Your task to perform on an android device: turn off smart reply in the gmail app Image 0: 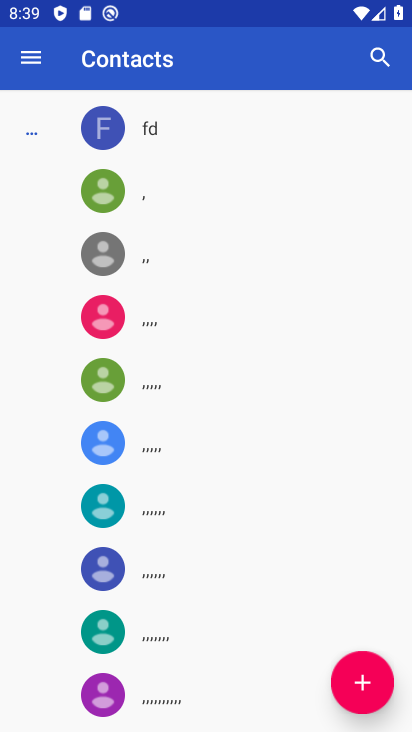
Step 0: press home button
Your task to perform on an android device: turn off smart reply in the gmail app Image 1: 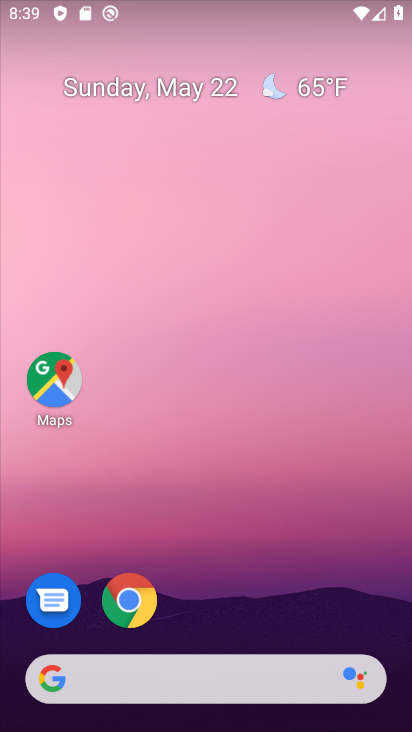
Step 1: drag from (306, 601) to (410, 95)
Your task to perform on an android device: turn off smart reply in the gmail app Image 2: 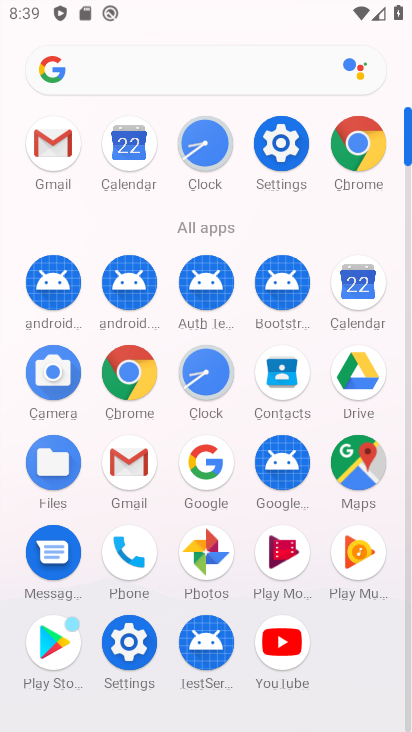
Step 2: click (41, 199)
Your task to perform on an android device: turn off smart reply in the gmail app Image 3: 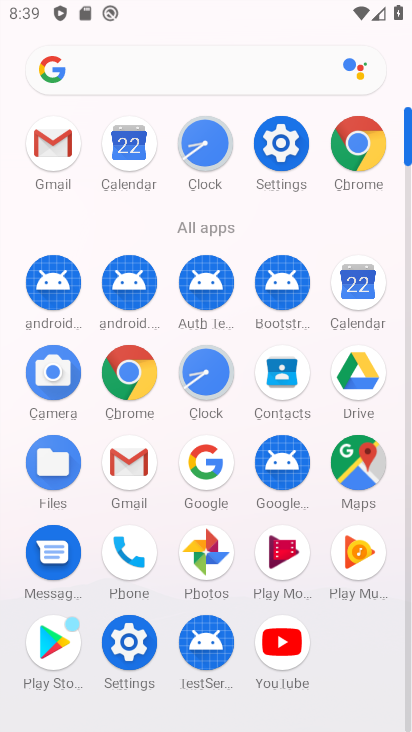
Step 3: click (49, 176)
Your task to perform on an android device: turn off smart reply in the gmail app Image 4: 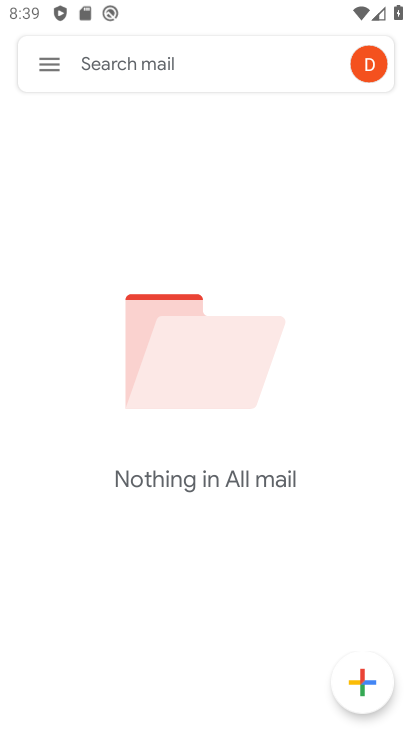
Step 4: click (51, 63)
Your task to perform on an android device: turn off smart reply in the gmail app Image 5: 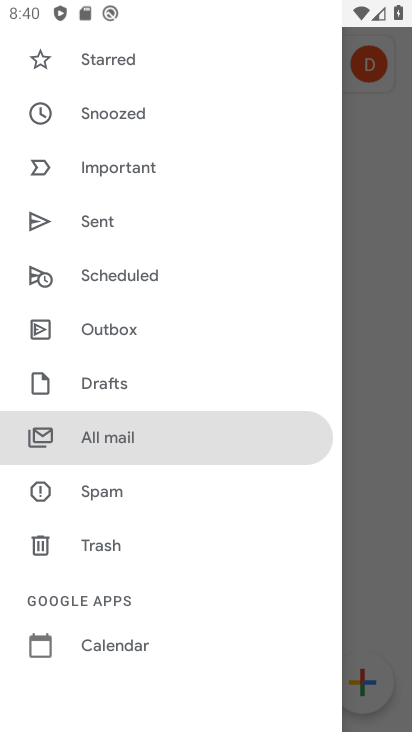
Step 5: drag from (138, 603) to (160, 311)
Your task to perform on an android device: turn off smart reply in the gmail app Image 6: 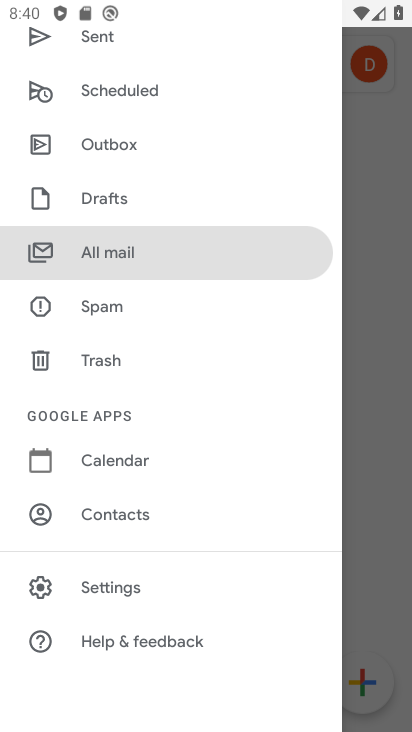
Step 6: click (111, 582)
Your task to perform on an android device: turn off smart reply in the gmail app Image 7: 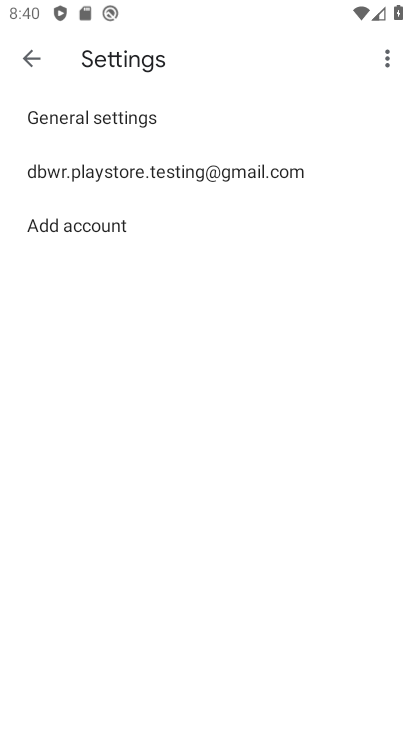
Step 7: click (160, 178)
Your task to perform on an android device: turn off smart reply in the gmail app Image 8: 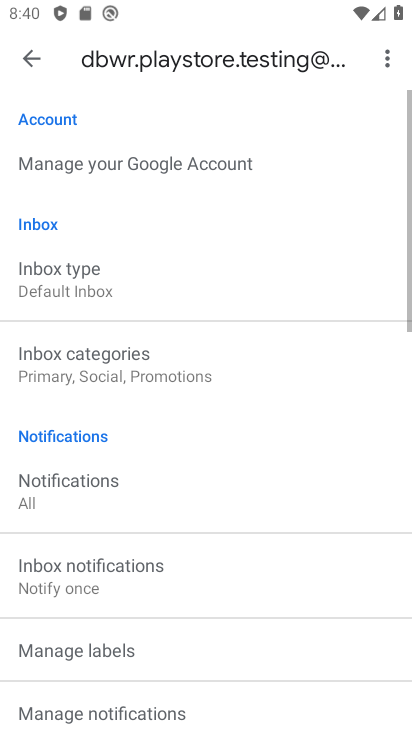
Step 8: drag from (121, 708) to (106, 394)
Your task to perform on an android device: turn off smart reply in the gmail app Image 9: 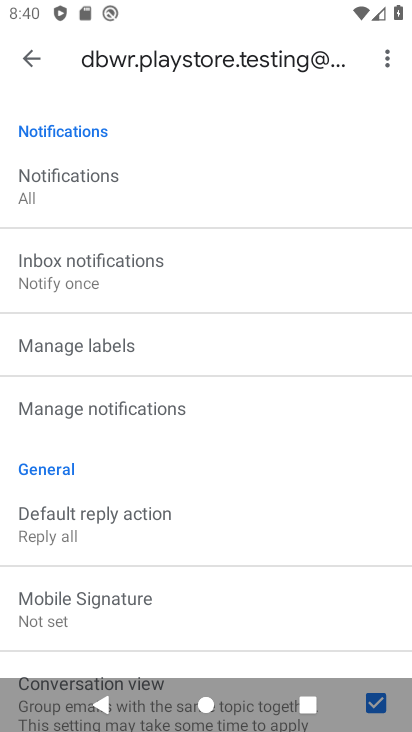
Step 9: drag from (134, 640) to (155, 364)
Your task to perform on an android device: turn off smart reply in the gmail app Image 10: 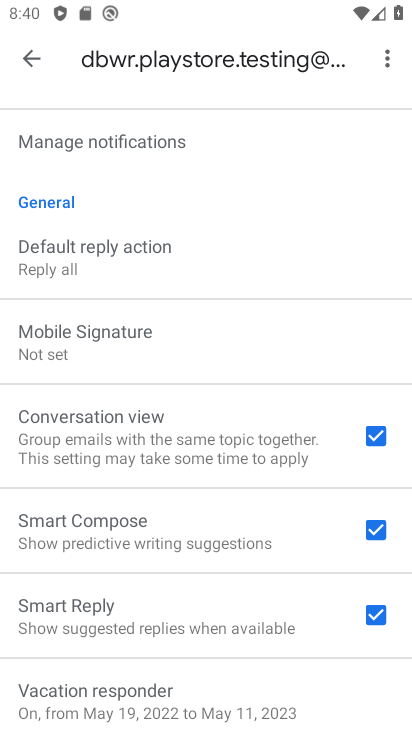
Step 10: click (368, 614)
Your task to perform on an android device: turn off smart reply in the gmail app Image 11: 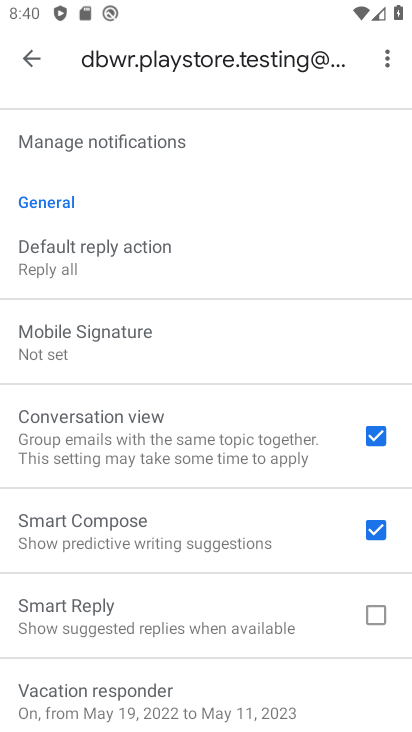
Step 11: task complete